Your task to perform on an android device: turn off improve location accuracy Image 0: 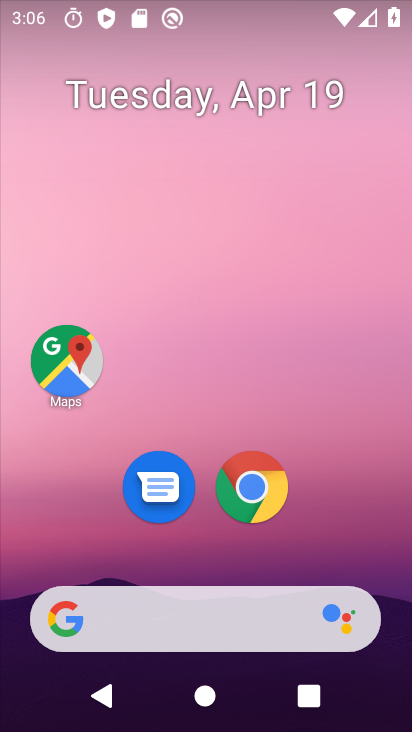
Step 0: drag from (202, 430) to (268, 1)
Your task to perform on an android device: turn off improve location accuracy Image 1: 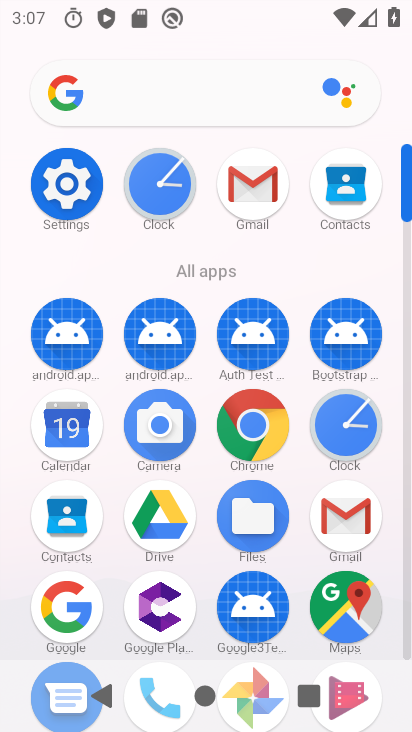
Step 1: click (78, 179)
Your task to perform on an android device: turn off improve location accuracy Image 2: 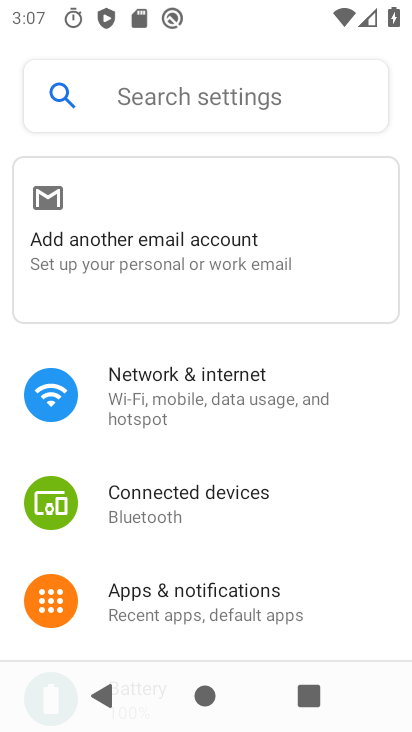
Step 2: drag from (182, 451) to (219, 42)
Your task to perform on an android device: turn off improve location accuracy Image 3: 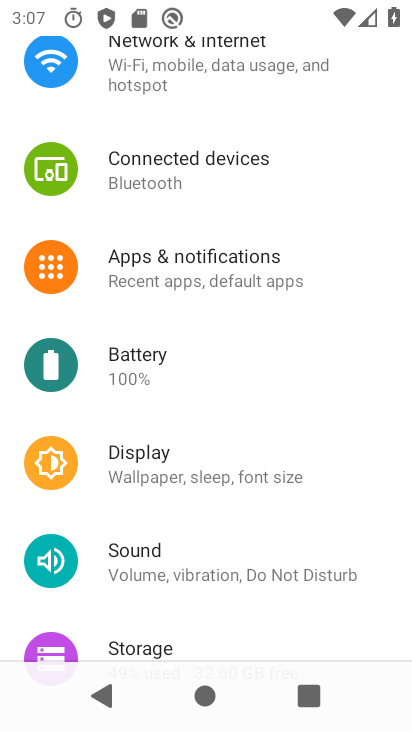
Step 3: drag from (208, 616) to (263, 39)
Your task to perform on an android device: turn off improve location accuracy Image 4: 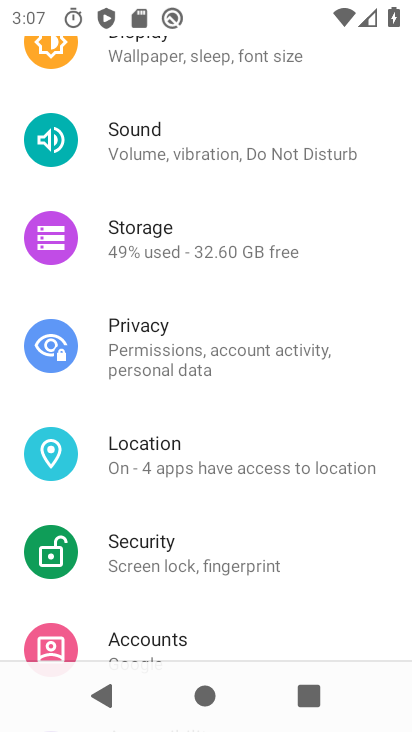
Step 4: click (191, 453)
Your task to perform on an android device: turn off improve location accuracy Image 5: 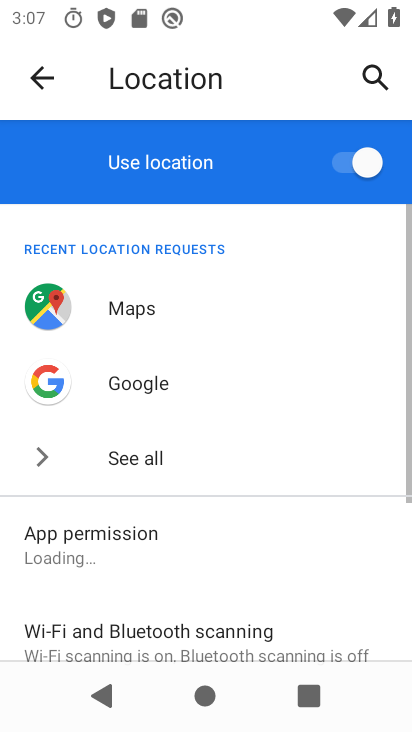
Step 5: drag from (154, 511) to (225, 98)
Your task to perform on an android device: turn off improve location accuracy Image 6: 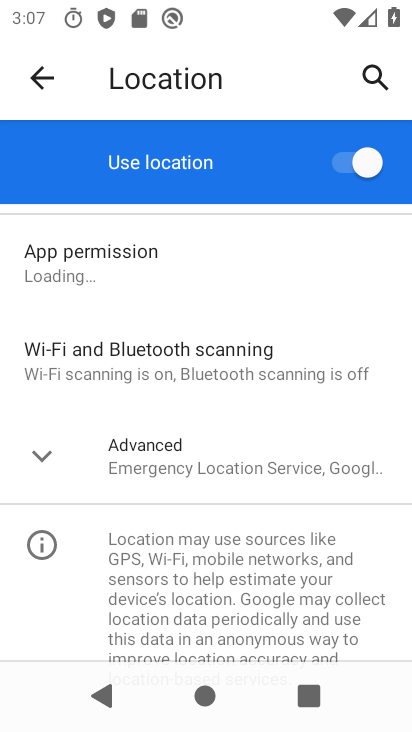
Step 6: click (173, 448)
Your task to perform on an android device: turn off improve location accuracy Image 7: 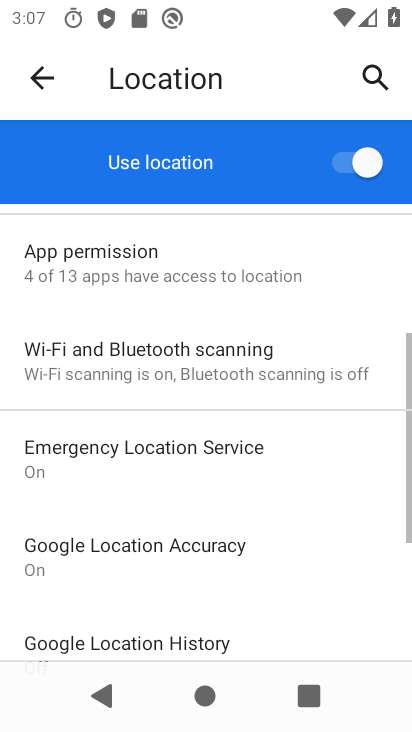
Step 7: drag from (189, 560) to (246, 273)
Your task to perform on an android device: turn off improve location accuracy Image 8: 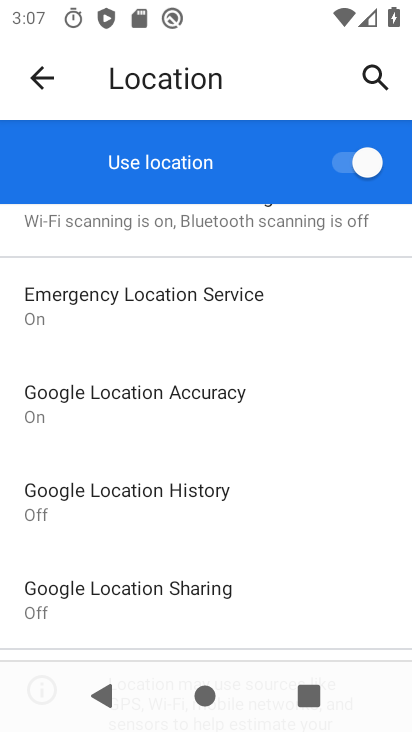
Step 8: click (145, 393)
Your task to perform on an android device: turn off improve location accuracy Image 9: 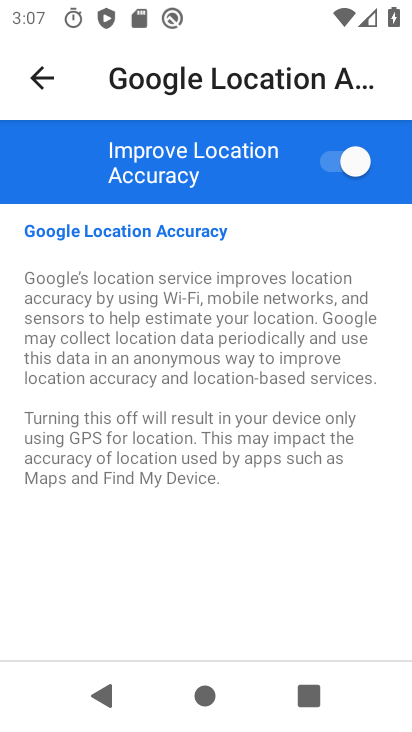
Step 9: click (347, 157)
Your task to perform on an android device: turn off improve location accuracy Image 10: 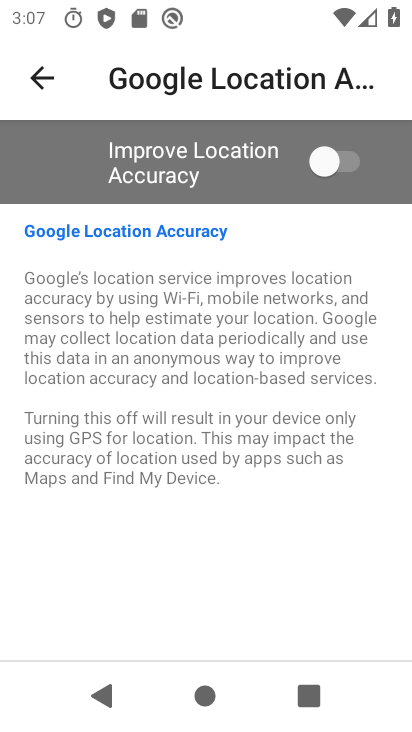
Step 10: task complete